Your task to perform on an android device: toggle data saver in the chrome app Image 0: 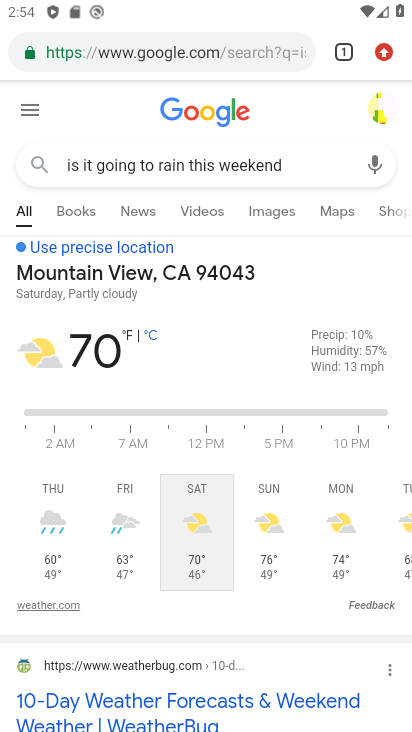
Step 0: press home button
Your task to perform on an android device: toggle data saver in the chrome app Image 1: 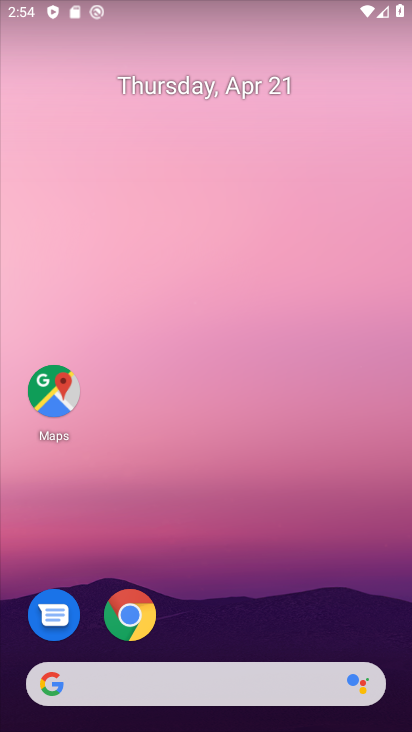
Step 1: click (135, 627)
Your task to perform on an android device: toggle data saver in the chrome app Image 2: 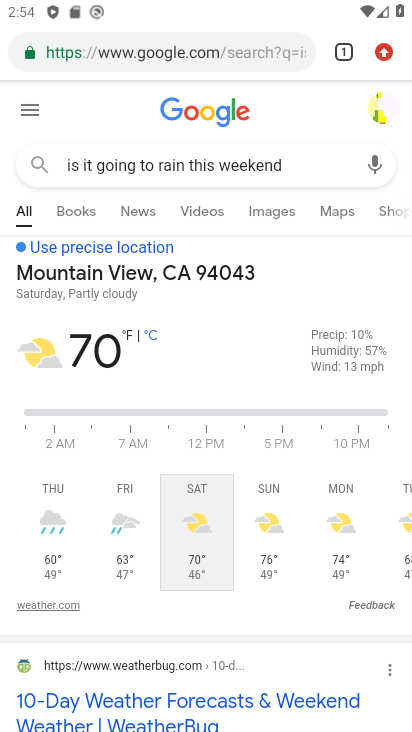
Step 2: drag from (384, 60) to (224, 643)
Your task to perform on an android device: toggle data saver in the chrome app Image 3: 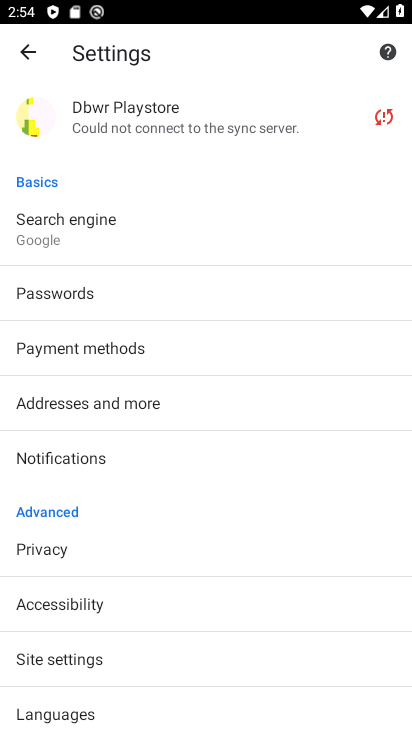
Step 3: drag from (218, 620) to (275, 284)
Your task to perform on an android device: toggle data saver in the chrome app Image 4: 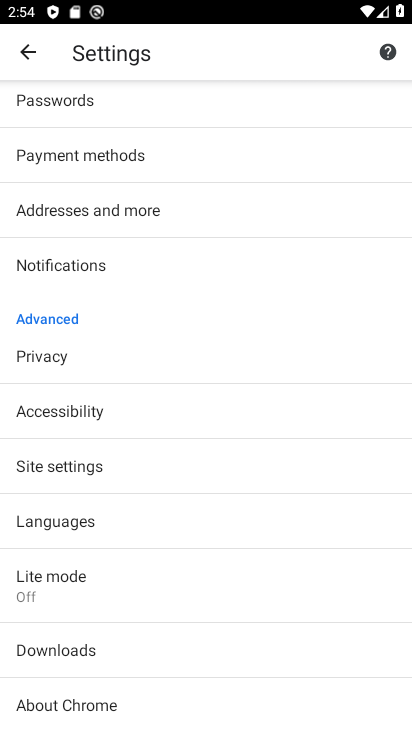
Step 4: click (155, 577)
Your task to perform on an android device: toggle data saver in the chrome app Image 5: 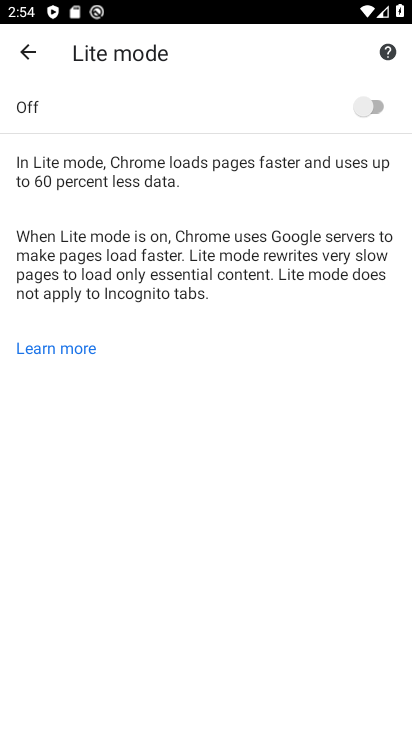
Step 5: click (369, 105)
Your task to perform on an android device: toggle data saver in the chrome app Image 6: 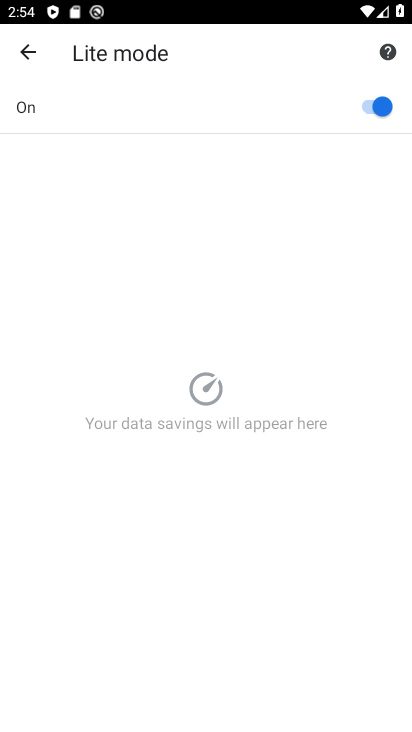
Step 6: task complete